Your task to perform on an android device: open chrome and create a bookmark for the current page Image 0: 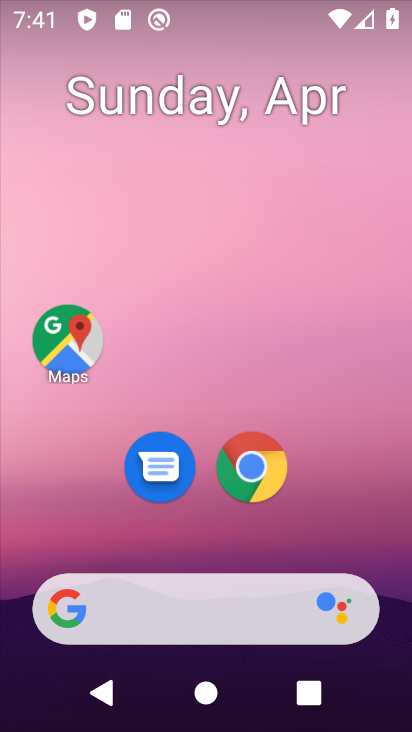
Step 0: click (248, 453)
Your task to perform on an android device: open chrome and create a bookmark for the current page Image 1: 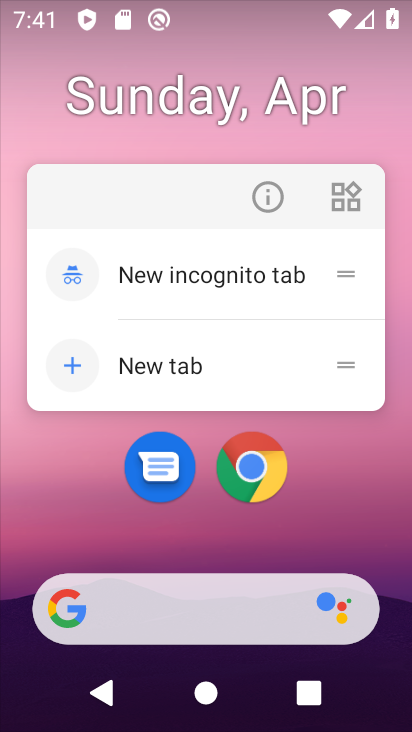
Step 1: click (248, 453)
Your task to perform on an android device: open chrome and create a bookmark for the current page Image 2: 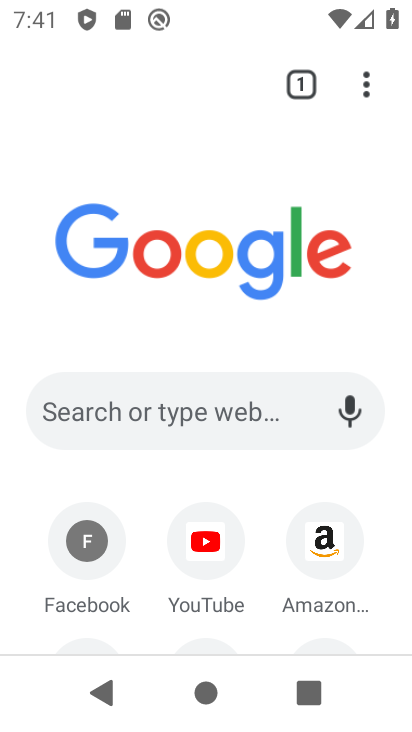
Step 2: click (358, 92)
Your task to perform on an android device: open chrome and create a bookmark for the current page Image 3: 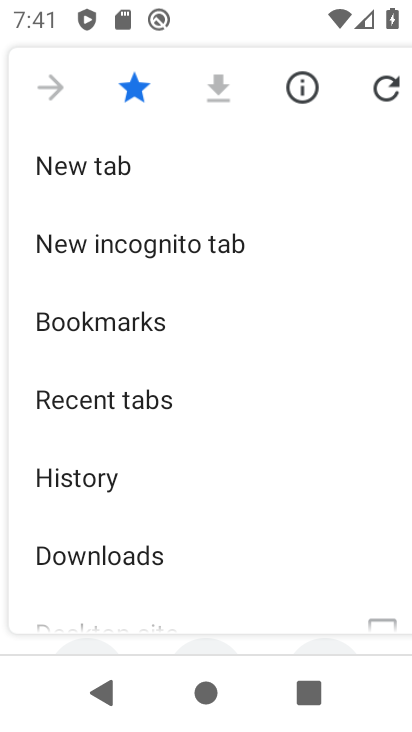
Step 3: task complete